Your task to perform on an android device: turn off javascript in the chrome app Image 0: 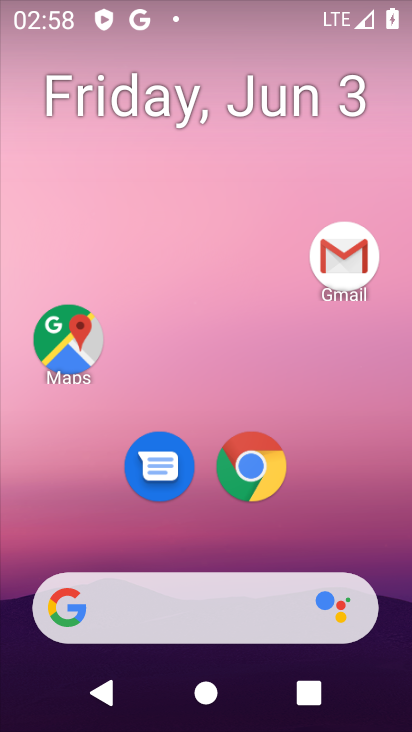
Step 0: click (247, 469)
Your task to perform on an android device: turn off javascript in the chrome app Image 1: 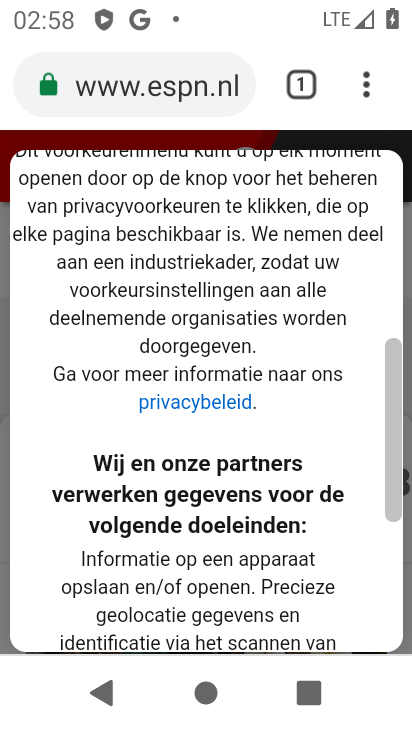
Step 1: click (364, 95)
Your task to perform on an android device: turn off javascript in the chrome app Image 2: 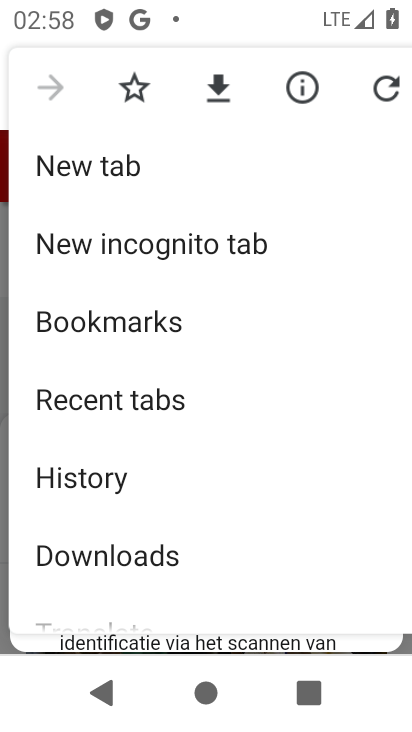
Step 2: drag from (160, 543) to (160, 256)
Your task to perform on an android device: turn off javascript in the chrome app Image 3: 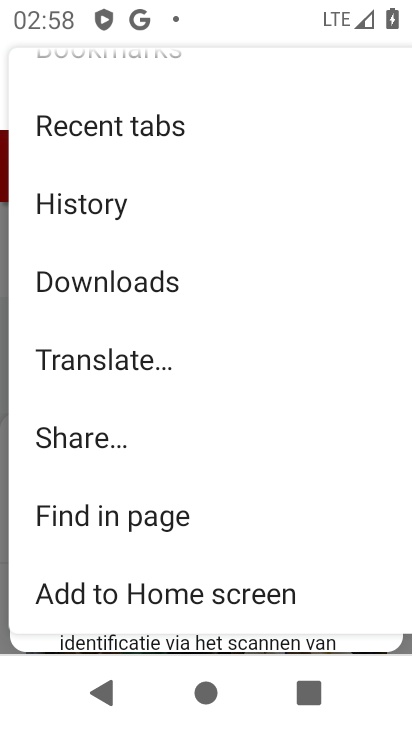
Step 3: drag from (99, 548) to (120, 423)
Your task to perform on an android device: turn off javascript in the chrome app Image 4: 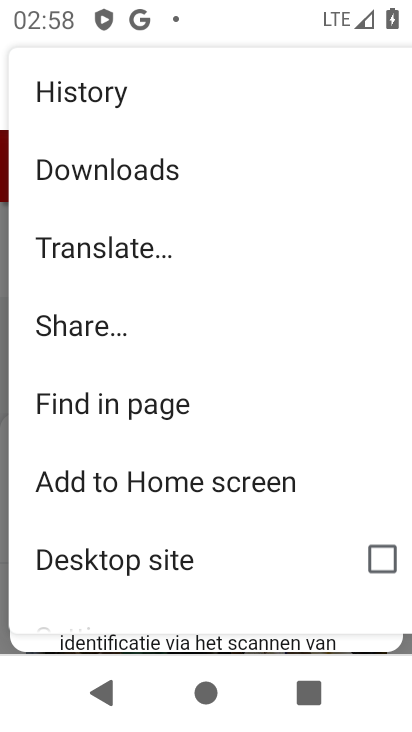
Step 4: drag from (118, 594) to (185, 352)
Your task to perform on an android device: turn off javascript in the chrome app Image 5: 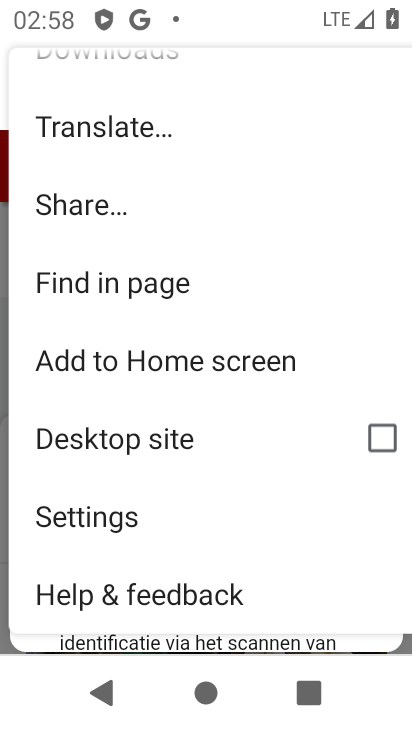
Step 5: click (90, 513)
Your task to perform on an android device: turn off javascript in the chrome app Image 6: 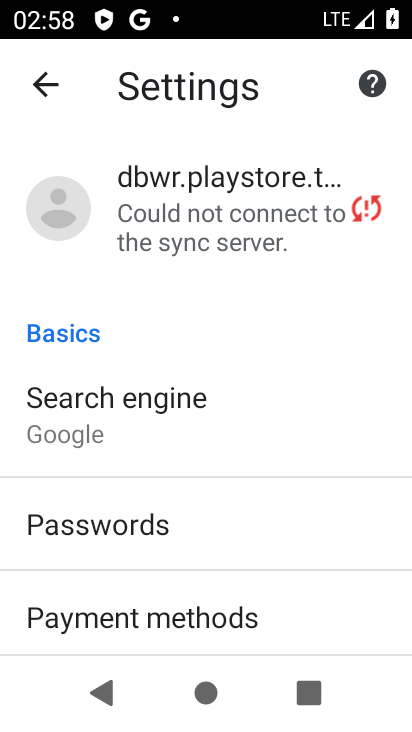
Step 6: drag from (132, 590) to (137, 392)
Your task to perform on an android device: turn off javascript in the chrome app Image 7: 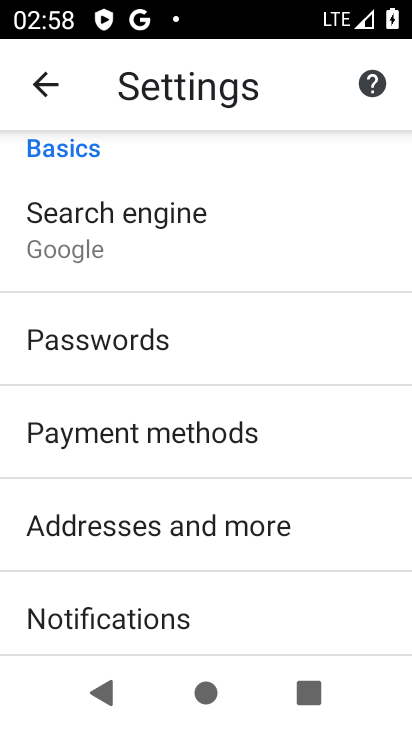
Step 7: drag from (162, 541) to (157, 390)
Your task to perform on an android device: turn off javascript in the chrome app Image 8: 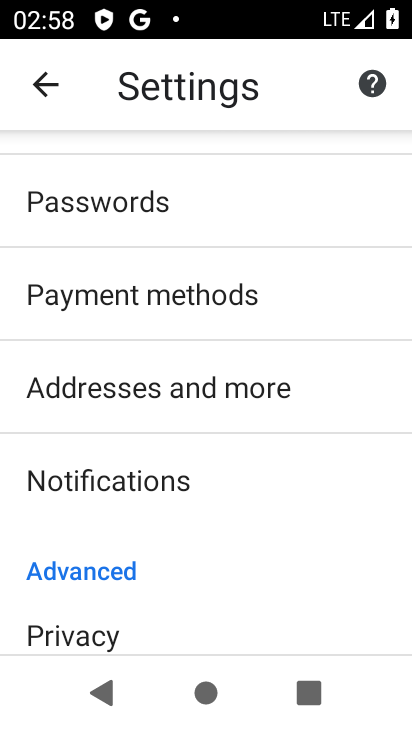
Step 8: drag from (178, 553) to (163, 354)
Your task to perform on an android device: turn off javascript in the chrome app Image 9: 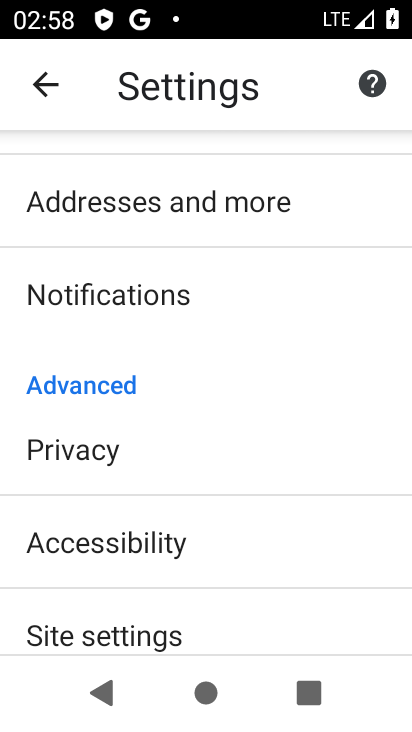
Step 9: drag from (188, 570) to (195, 363)
Your task to perform on an android device: turn off javascript in the chrome app Image 10: 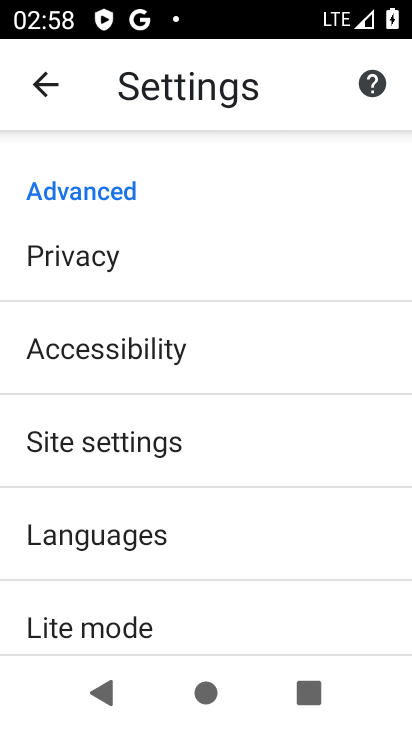
Step 10: click (133, 452)
Your task to perform on an android device: turn off javascript in the chrome app Image 11: 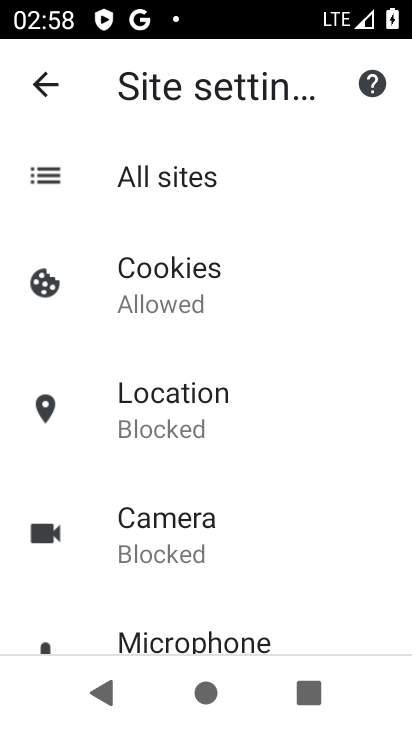
Step 11: drag from (198, 573) to (197, 301)
Your task to perform on an android device: turn off javascript in the chrome app Image 12: 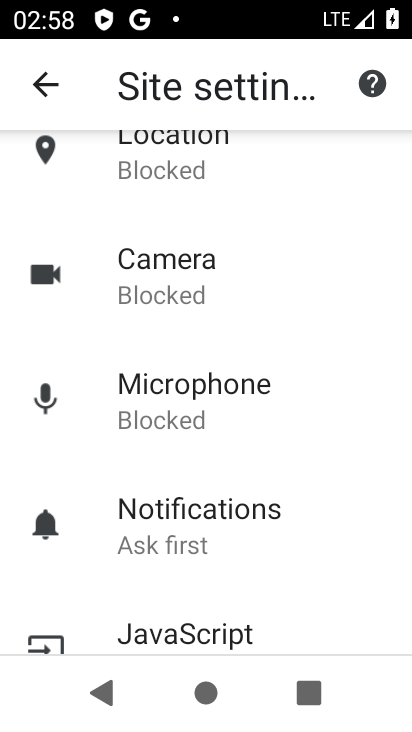
Step 12: click (218, 655)
Your task to perform on an android device: turn off javascript in the chrome app Image 13: 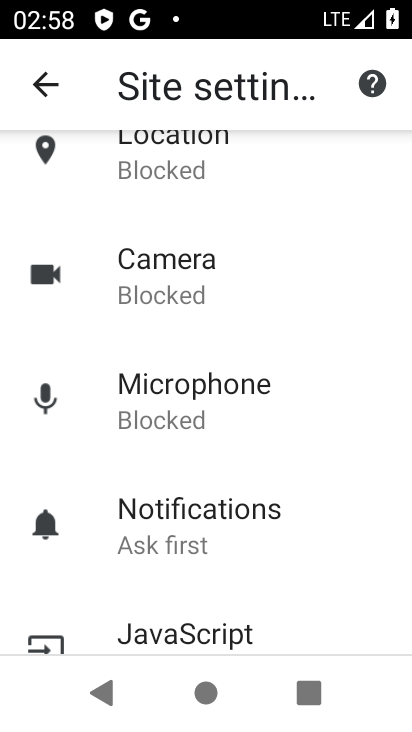
Step 13: click (185, 640)
Your task to perform on an android device: turn off javascript in the chrome app Image 14: 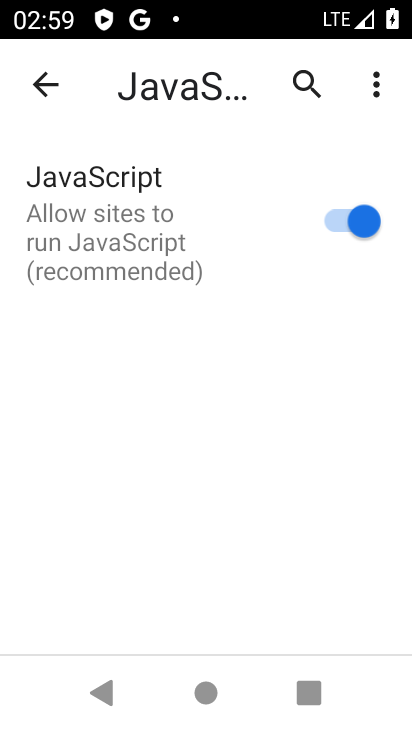
Step 14: click (329, 229)
Your task to perform on an android device: turn off javascript in the chrome app Image 15: 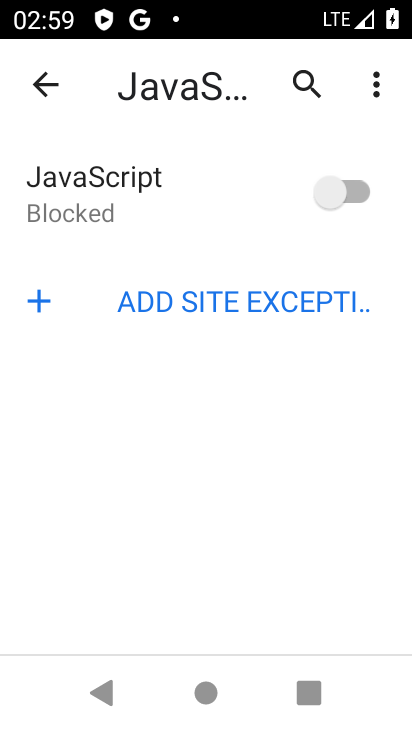
Step 15: task complete